Your task to perform on an android device: Open Chrome and go to the settings page Image 0: 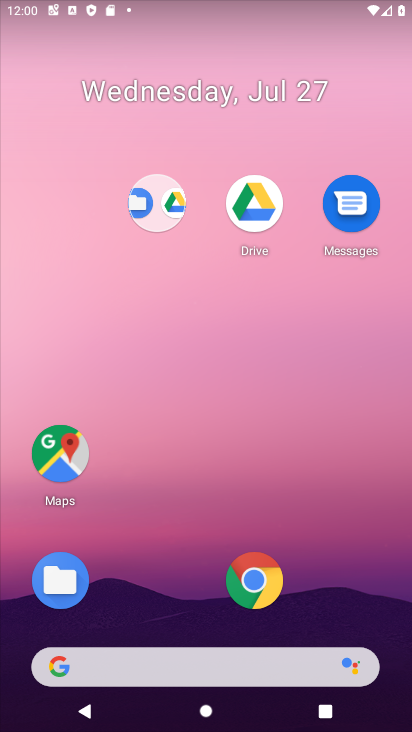
Step 0: click (267, 588)
Your task to perform on an android device: Open Chrome and go to the settings page Image 1: 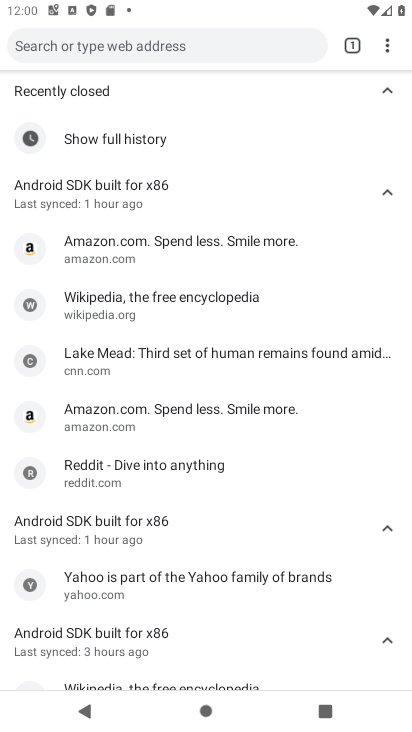
Step 1: press back button
Your task to perform on an android device: Open Chrome and go to the settings page Image 2: 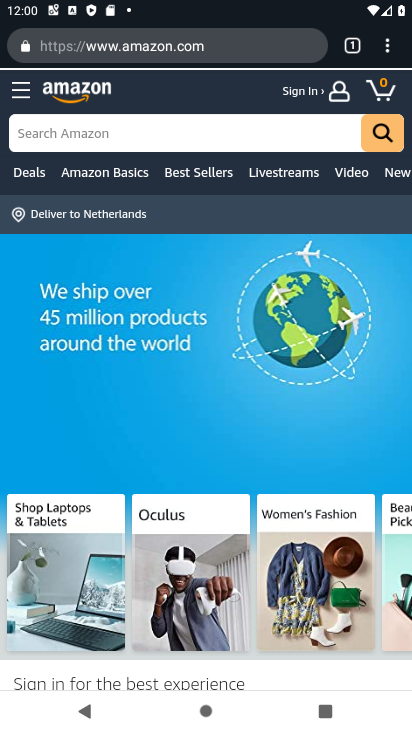
Step 2: click (389, 42)
Your task to perform on an android device: Open Chrome and go to the settings page Image 3: 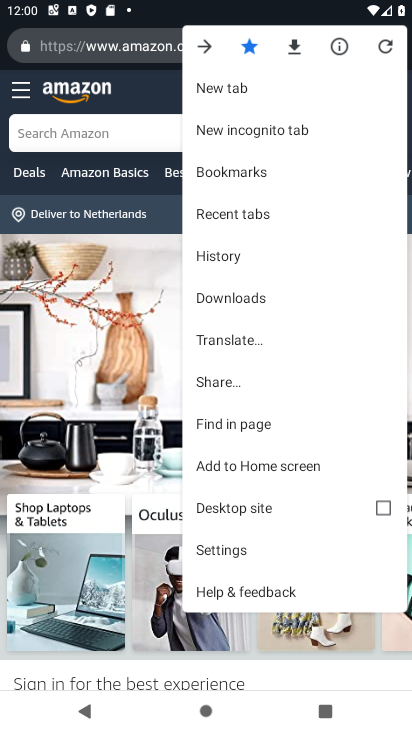
Step 3: click (205, 560)
Your task to perform on an android device: Open Chrome and go to the settings page Image 4: 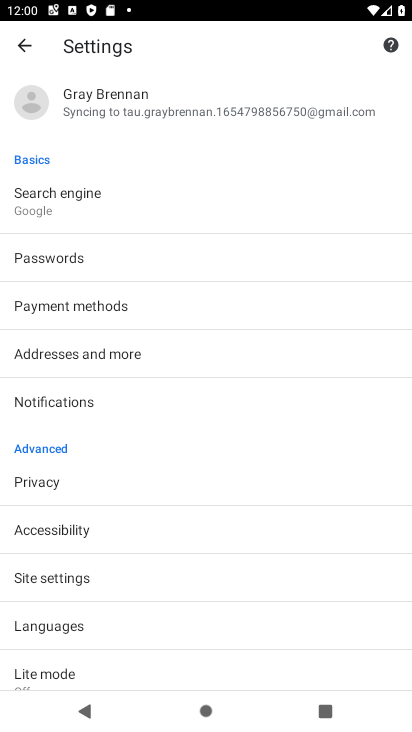
Step 4: task complete